Your task to perform on an android device: delete the emails in spam in the gmail app Image 0: 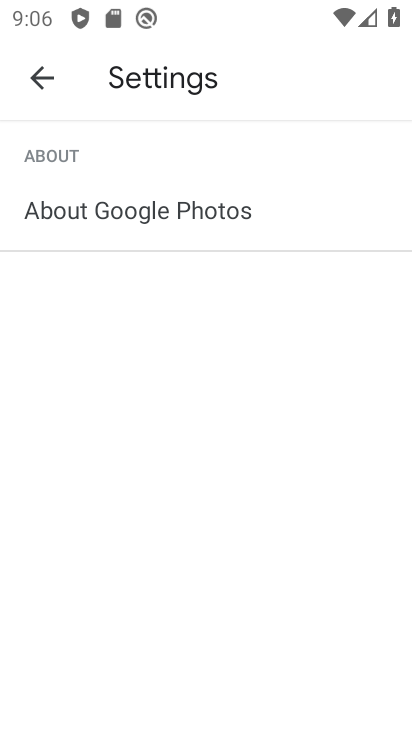
Step 0: press home button
Your task to perform on an android device: delete the emails in spam in the gmail app Image 1: 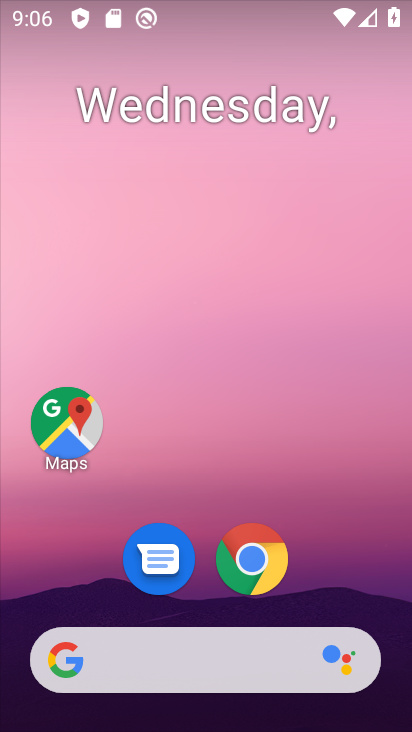
Step 1: drag from (342, 567) to (285, 320)
Your task to perform on an android device: delete the emails in spam in the gmail app Image 2: 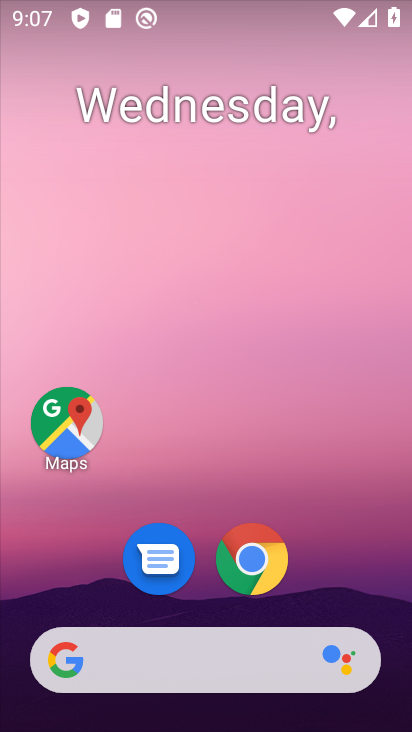
Step 2: drag from (319, 557) to (248, 115)
Your task to perform on an android device: delete the emails in spam in the gmail app Image 3: 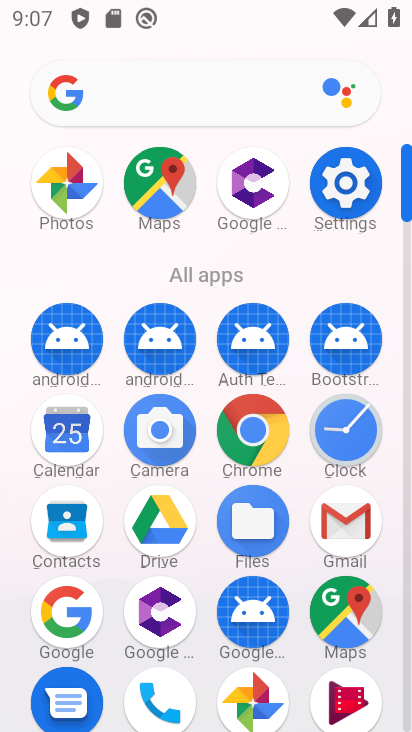
Step 3: click (342, 528)
Your task to perform on an android device: delete the emails in spam in the gmail app Image 4: 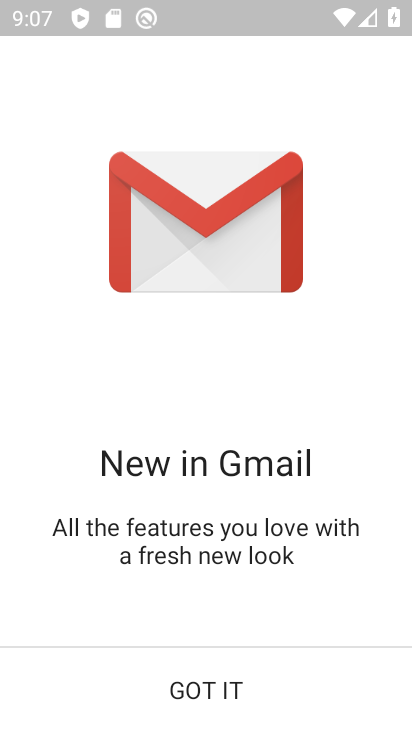
Step 4: click (214, 699)
Your task to perform on an android device: delete the emails in spam in the gmail app Image 5: 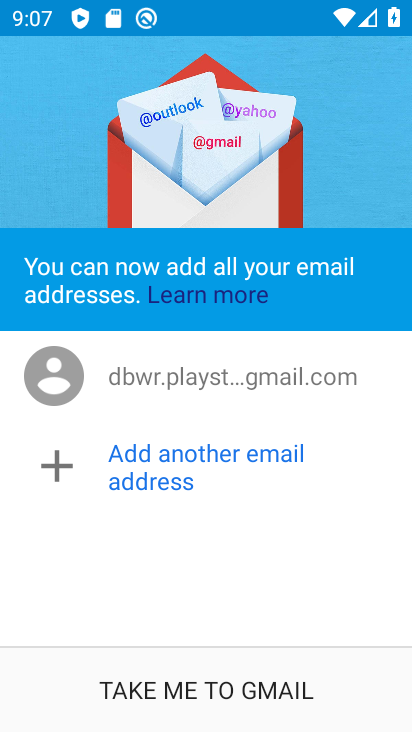
Step 5: click (213, 699)
Your task to perform on an android device: delete the emails in spam in the gmail app Image 6: 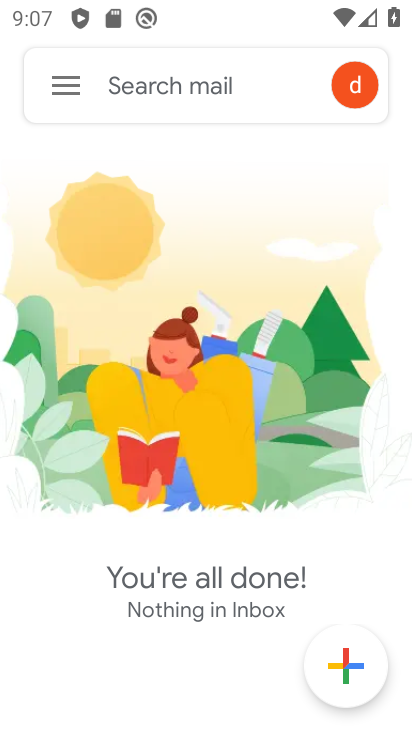
Step 6: click (70, 87)
Your task to perform on an android device: delete the emails in spam in the gmail app Image 7: 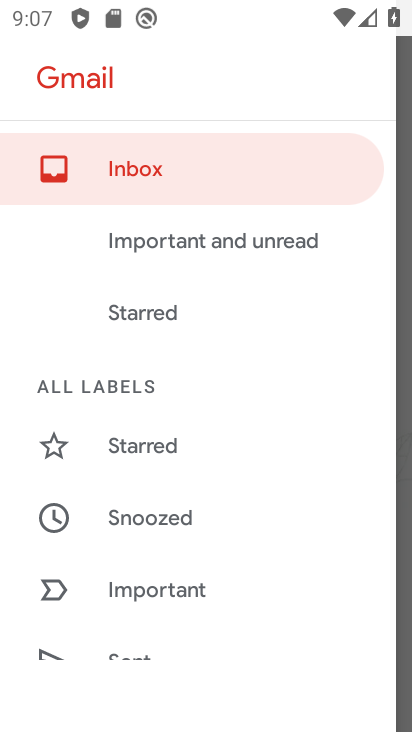
Step 7: drag from (211, 546) to (207, 265)
Your task to perform on an android device: delete the emails in spam in the gmail app Image 8: 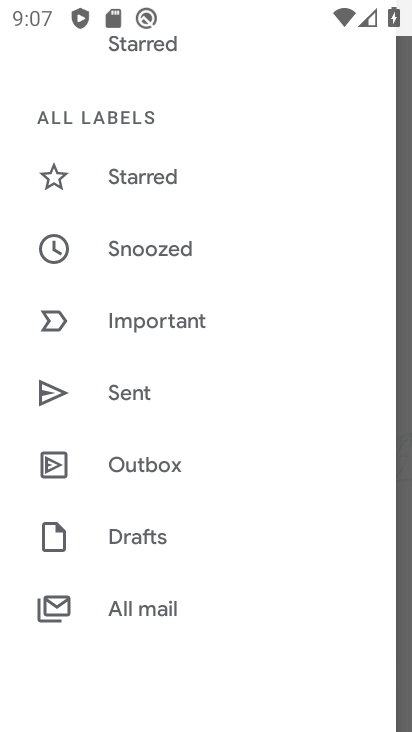
Step 8: drag from (198, 568) to (231, 203)
Your task to perform on an android device: delete the emails in spam in the gmail app Image 9: 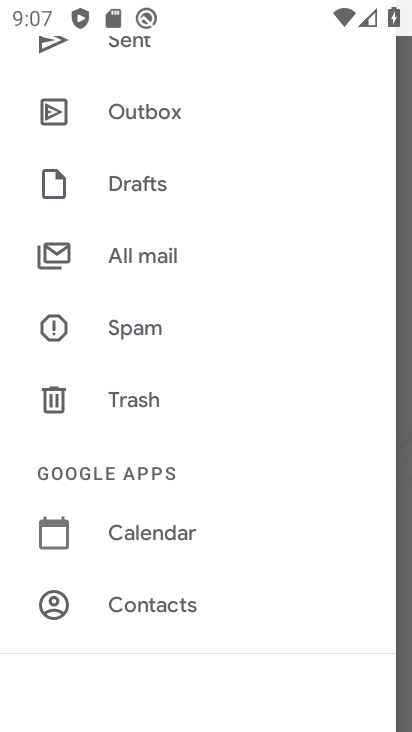
Step 9: click (156, 333)
Your task to perform on an android device: delete the emails in spam in the gmail app Image 10: 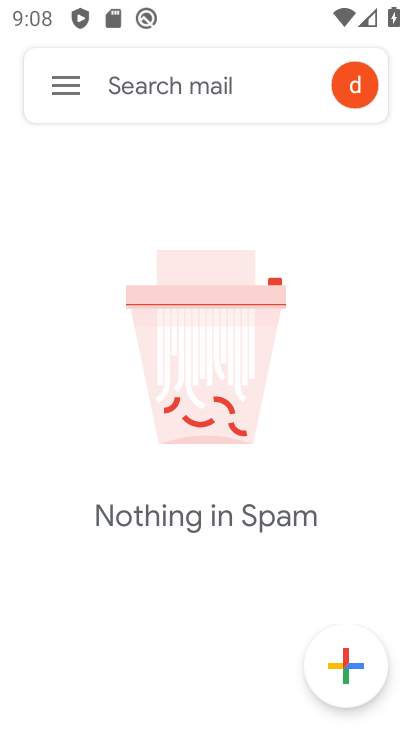
Step 10: task complete